Your task to perform on an android device: Open accessibility settings Image 0: 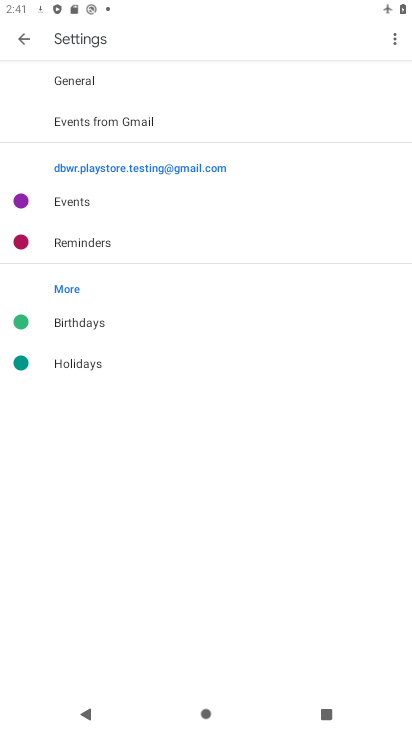
Step 0: press home button
Your task to perform on an android device: Open accessibility settings Image 1: 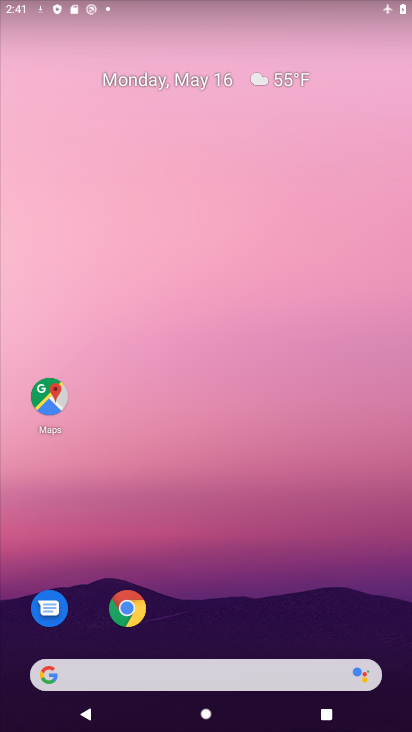
Step 1: drag from (232, 636) to (184, 227)
Your task to perform on an android device: Open accessibility settings Image 2: 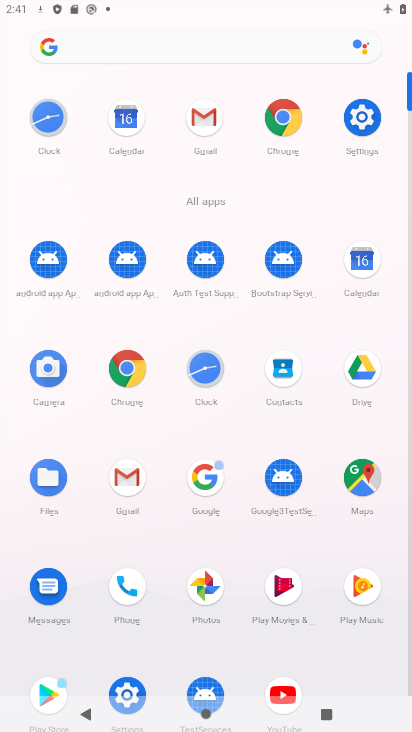
Step 2: click (332, 108)
Your task to perform on an android device: Open accessibility settings Image 3: 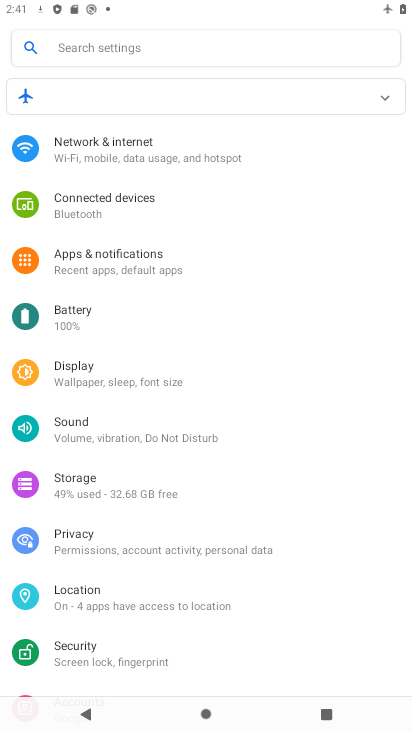
Step 3: drag from (138, 639) to (188, 406)
Your task to perform on an android device: Open accessibility settings Image 4: 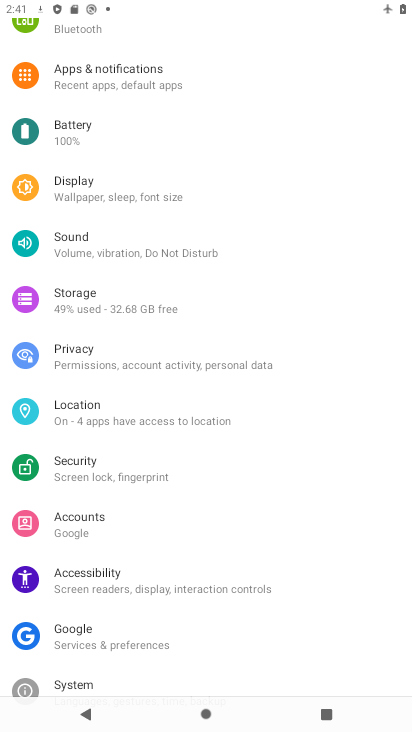
Step 4: drag from (210, 473) to (210, 287)
Your task to perform on an android device: Open accessibility settings Image 5: 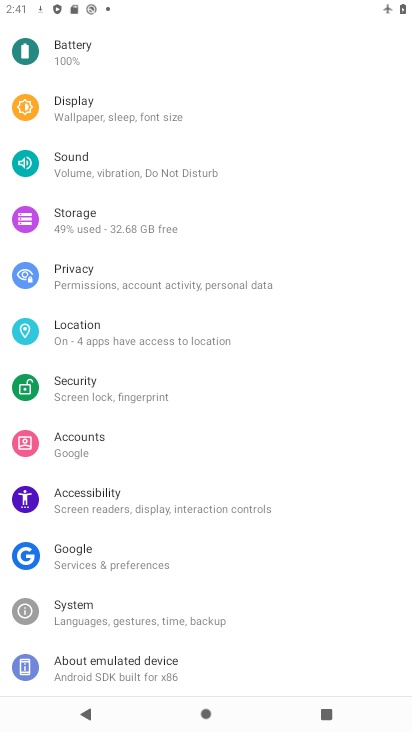
Step 5: click (86, 506)
Your task to perform on an android device: Open accessibility settings Image 6: 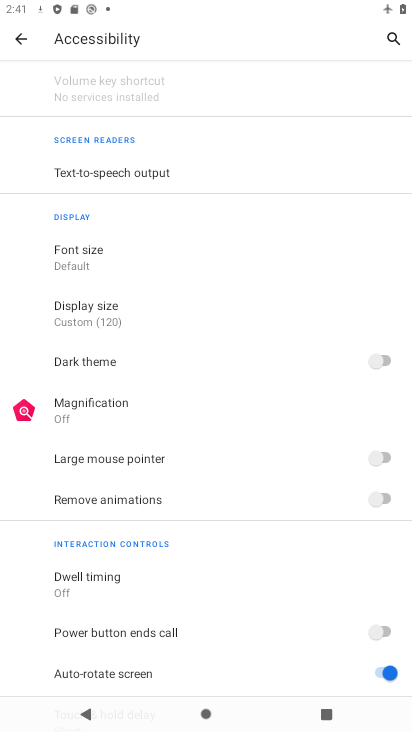
Step 6: task complete